Your task to perform on an android device: Go to Yahoo.com Image 0: 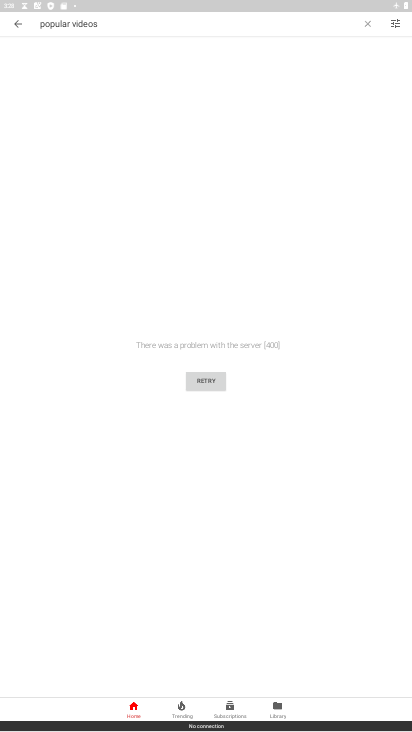
Step 0: press home button
Your task to perform on an android device: Go to Yahoo.com Image 1: 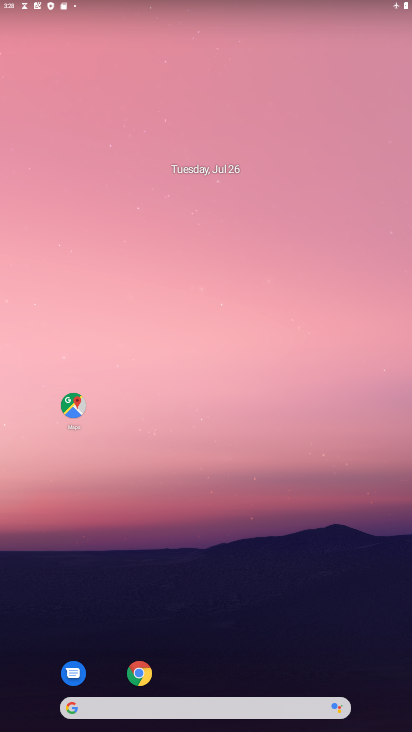
Step 1: click (140, 674)
Your task to perform on an android device: Go to Yahoo.com Image 2: 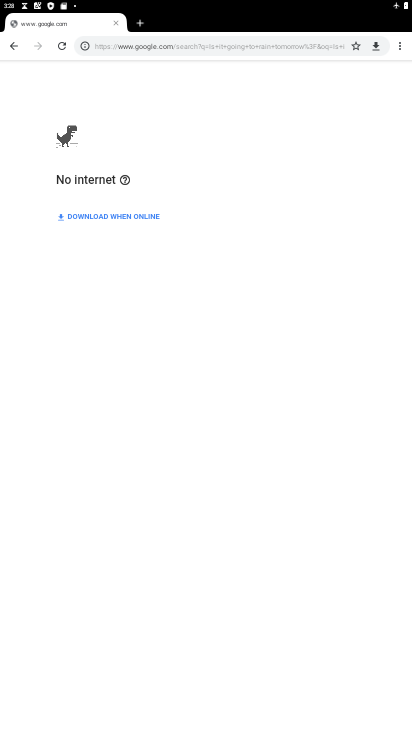
Step 2: click (260, 46)
Your task to perform on an android device: Go to Yahoo.com Image 3: 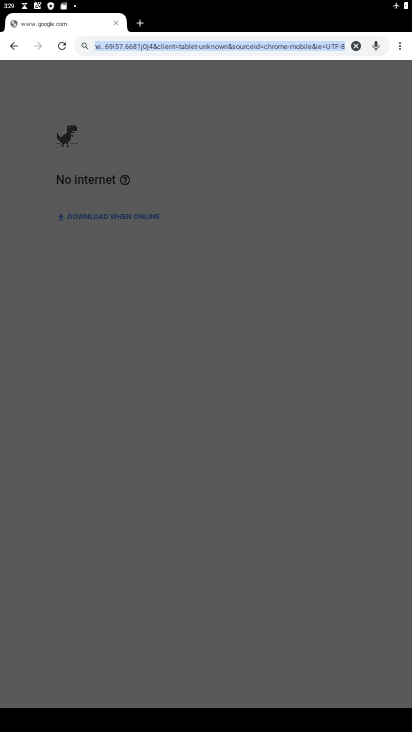
Step 3: type "Yahoo.com"
Your task to perform on an android device: Go to Yahoo.com Image 4: 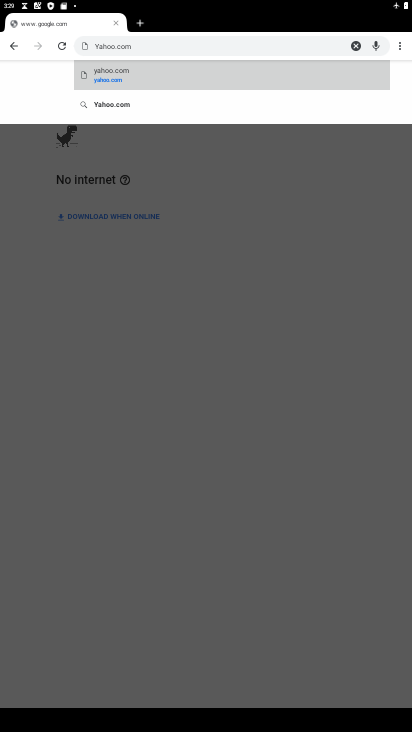
Step 4: click (119, 106)
Your task to perform on an android device: Go to Yahoo.com Image 5: 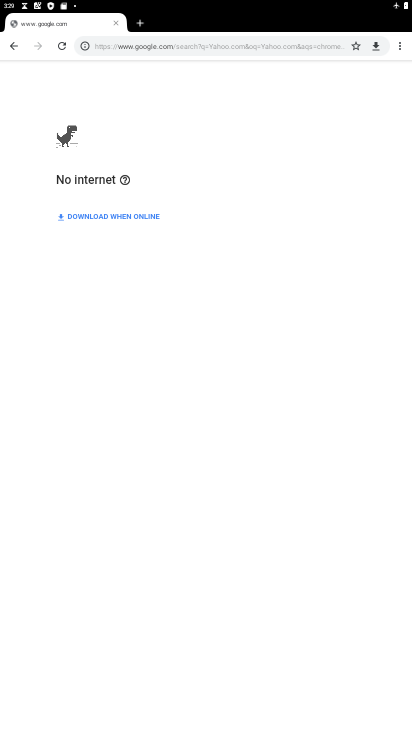
Step 5: task complete